Your task to perform on an android device: delete the emails in spam in the gmail app Image 0: 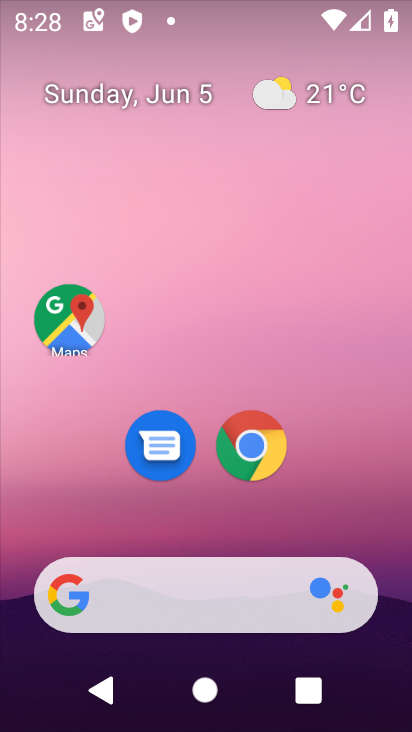
Step 0: drag from (373, 522) to (367, 90)
Your task to perform on an android device: delete the emails in spam in the gmail app Image 1: 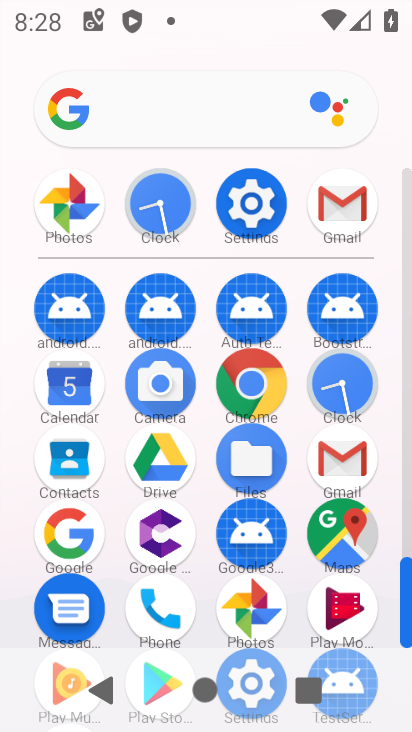
Step 1: click (353, 197)
Your task to perform on an android device: delete the emails in spam in the gmail app Image 2: 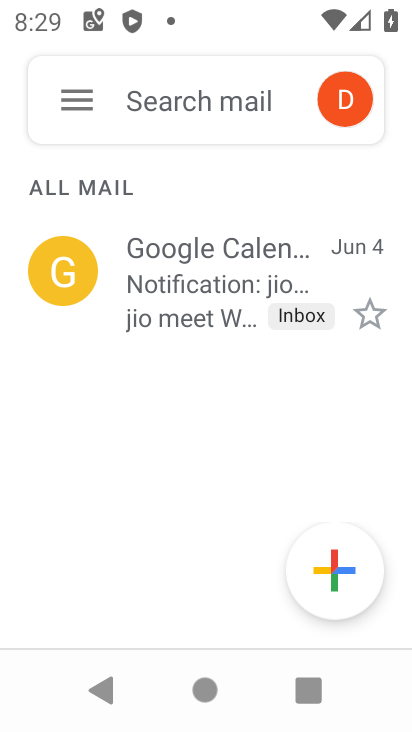
Step 2: click (83, 101)
Your task to perform on an android device: delete the emails in spam in the gmail app Image 3: 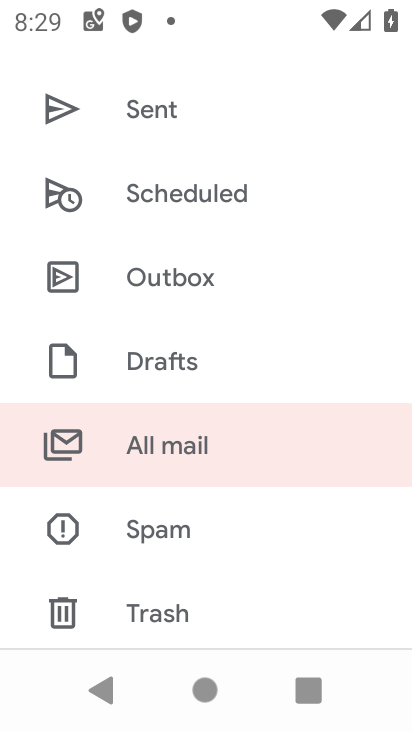
Step 3: click (172, 526)
Your task to perform on an android device: delete the emails in spam in the gmail app Image 4: 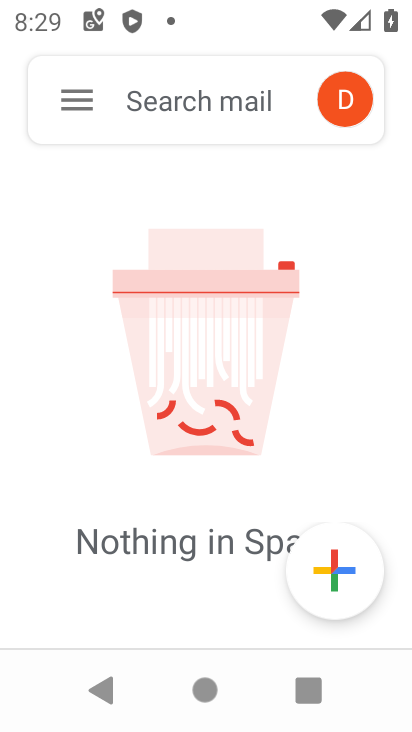
Step 4: task complete